Your task to perform on an android device: toggle pop-ups in chrome Image 0: 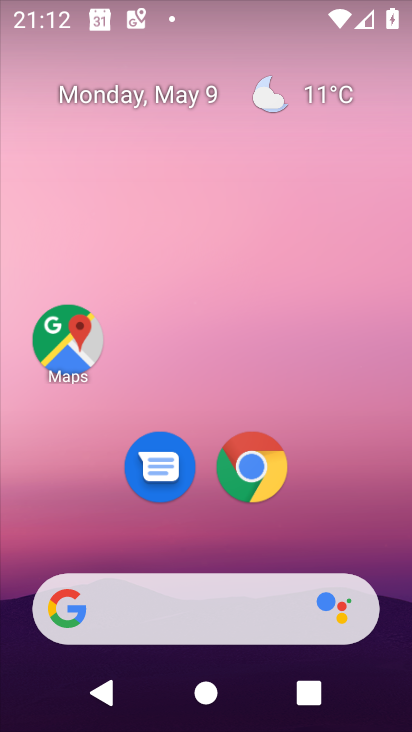
Step 0: drag from (310, 553) to (311, 190)
Your task to perform on an android device: toggle pop-ups in chrome Image 1: 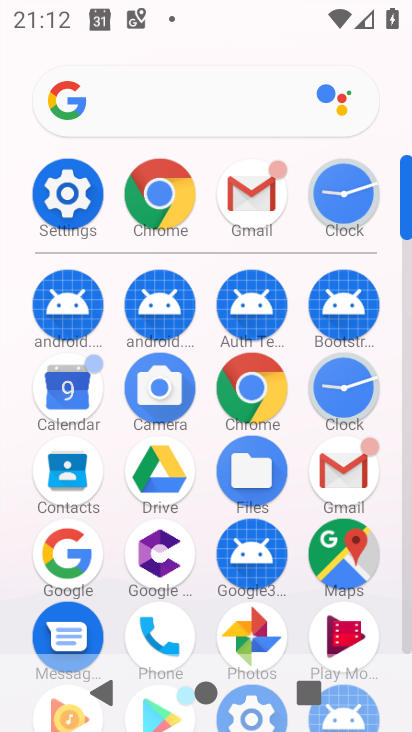
Step 1: click (168, 191)
Your task to perform on an android device: toggle pop-ups in chrome Image 2: 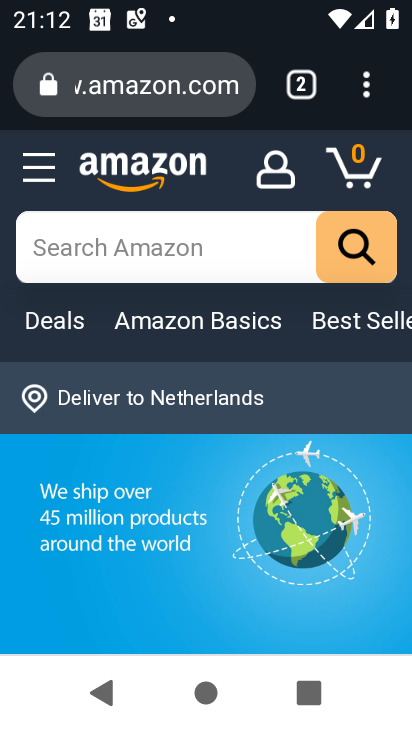
Step 2: click (347, 86)
Your task to perform on an android device: toggle pop-ups in chrome Image 3: 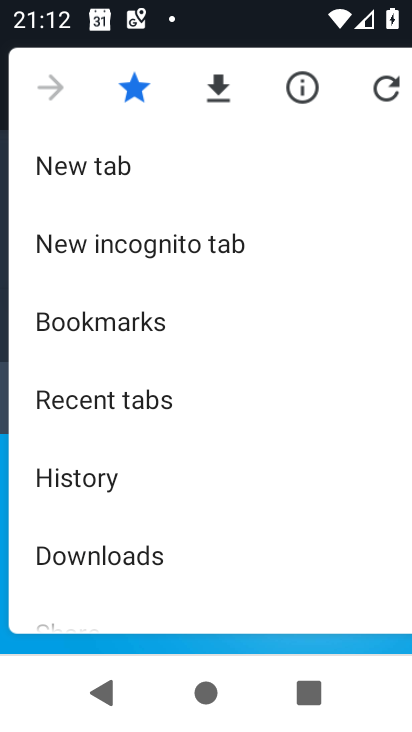
Step 3: drag from (148, 527) to (195, 282)
Your task to perform on an android device: toggle pop-ups in chrome Image 4: 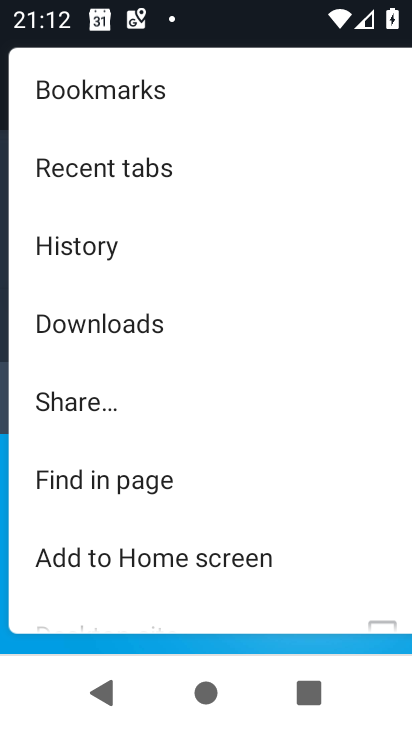
Step 4: drag from (120, 548) to (216, 220)
Your task to perform on an android device: toggle pop-ups in chrome Image 5: 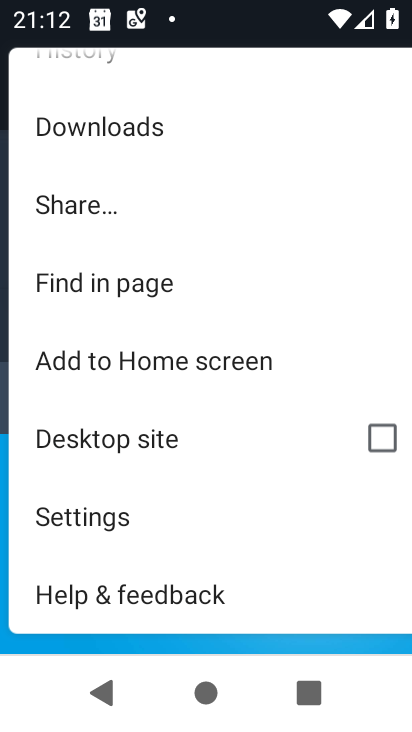
Step 5: click (91, 520)
Your task to perform on an android device: toggle pop-ups in chrome Image 6: 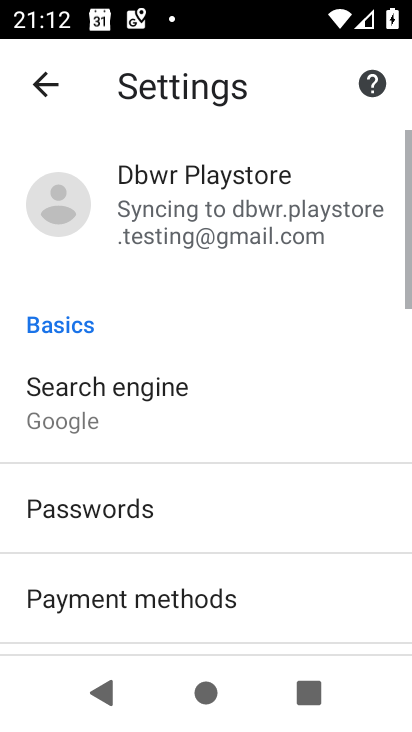
Step 6: drag from (217, 576) to (335, 171)
Your task to perform on an android device: toggle pop-ups in chrome Image 7: 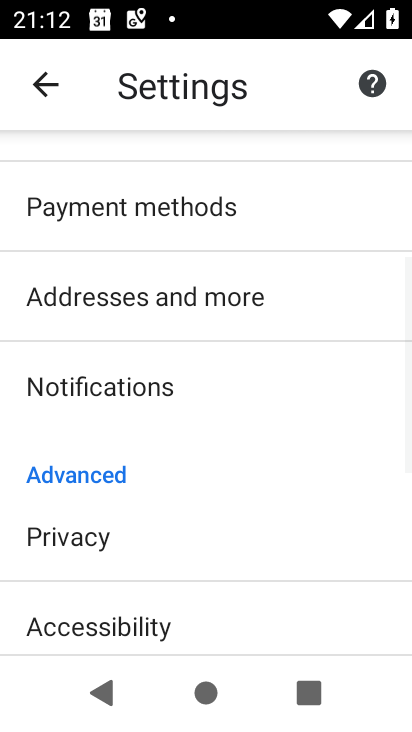
Step 7: drag from (231, 542) to (299, 168)
Your task to perform on an android device: toggle pop-ups in chrome Image 8: 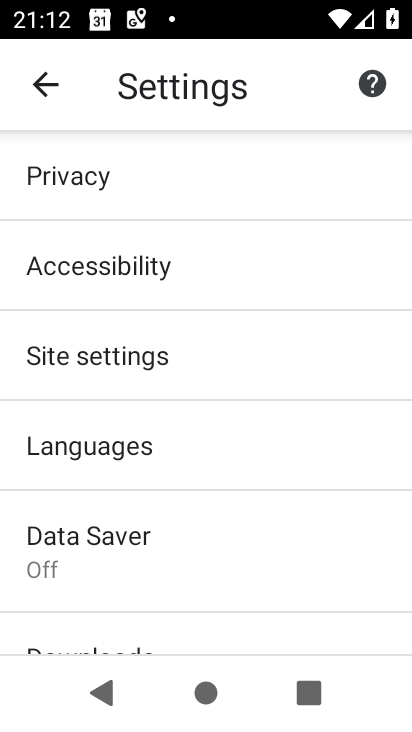
Step 8: click (163, 351)
Your task to perform on an android device: toggle pop-ups in chrome Image 9: 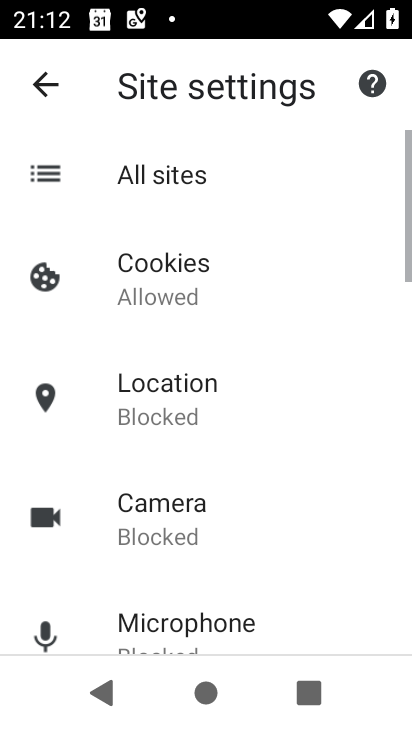
Step 9: drag from (187, 583) to (284, 182)
Your task to perform on an android device: toggle pop-ups in chrome Image 10: 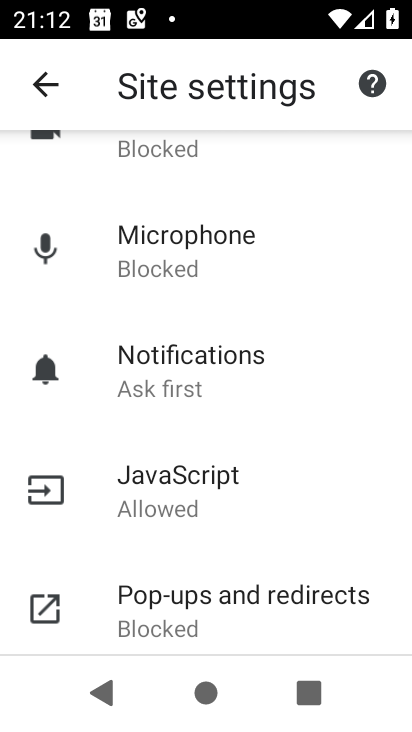
Step 10: drag from (188, 545) to (238, 382)
Your task to perform on an android device: toggle pop-ups in chrome Image 11: 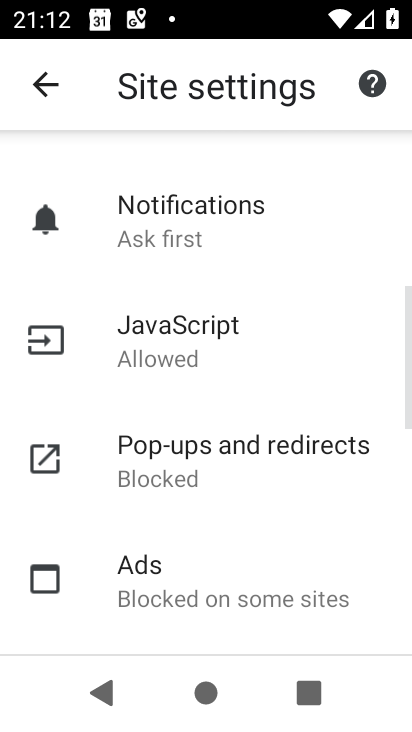
Step 11: click (182, 476)
Your task to perform on an android device: toggle pop-ups in chrome Image 12: 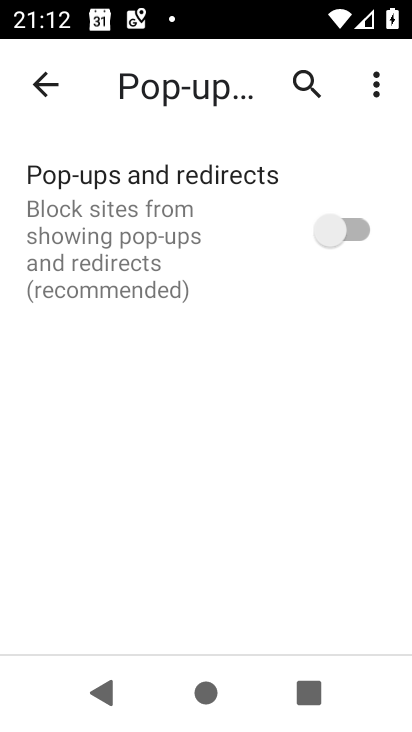
Step 12: click (344, 213)
Your task to perform on an android device: toggle pop-ups in chrome Image 13: 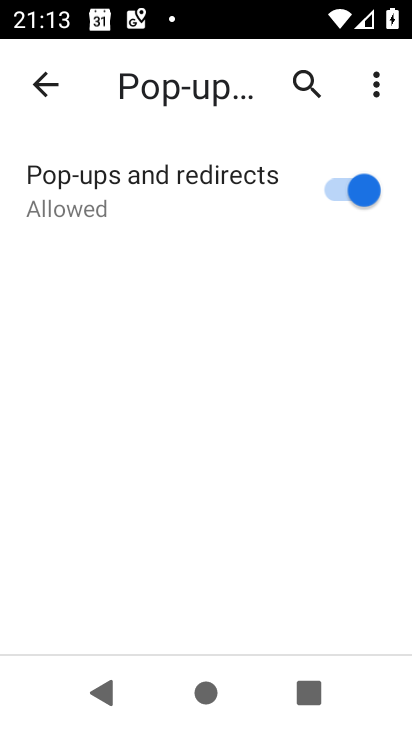
Step 13: task complete